Your task to perform on an android device: Search for pizza restaurants on Maps Image 0: 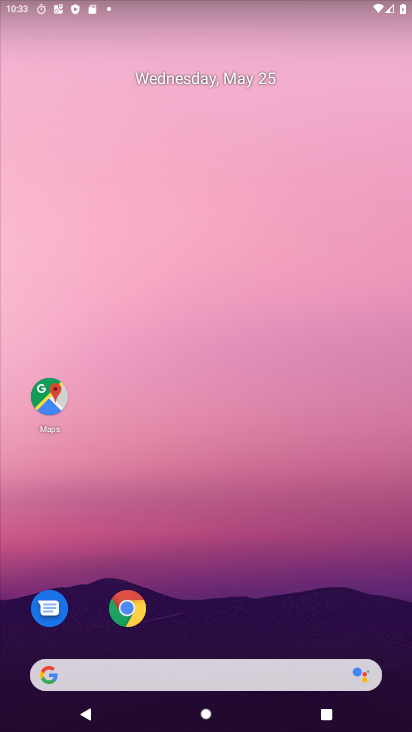
Step 0: click (50, 395)
Your task to perform on an android device: Search for pizza restaurants on Maps Image 1: 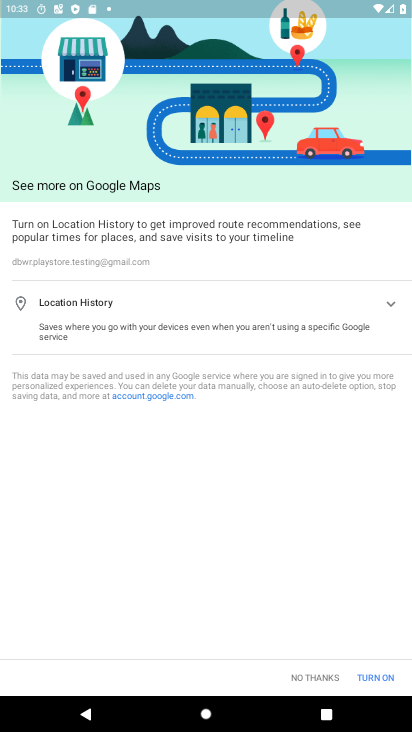
Step 1: click (313, 675)
Your task to perform on an android device: Search for pizza restaurants on Maps Image 2: 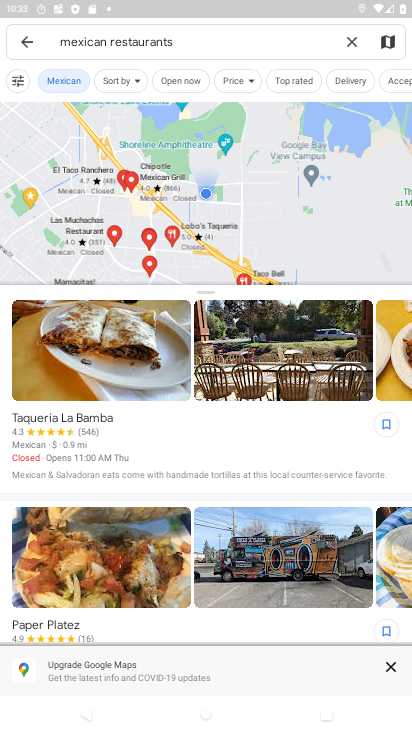
Step 2: click (350, 40)
Your task to perform on an android device: Search for pizza restaurants on Maps Image 3: 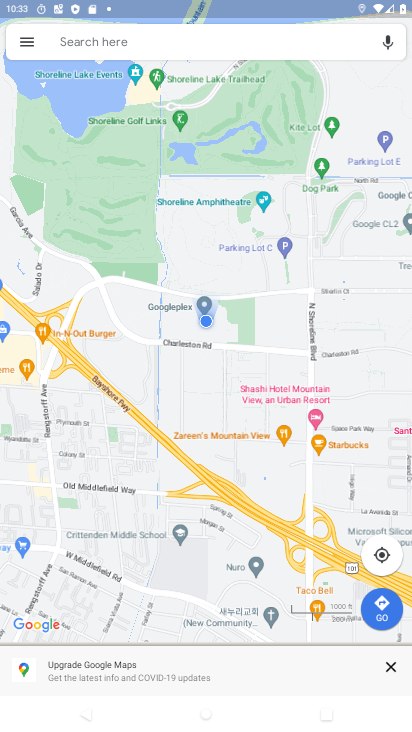
Step 3: click (202, 48)
Your task to perform on an android device: Search for pizza restaurants on Maps Image 4: 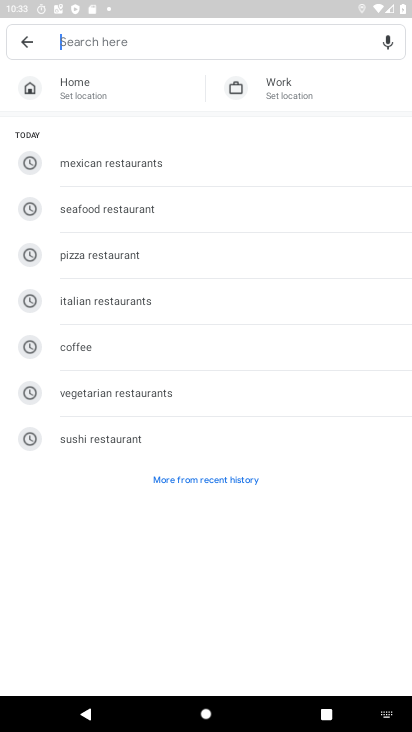
Step 4: click (168, 259)
Your task to perform on an android device: Search for pizza restaurants on Maps Image 5: 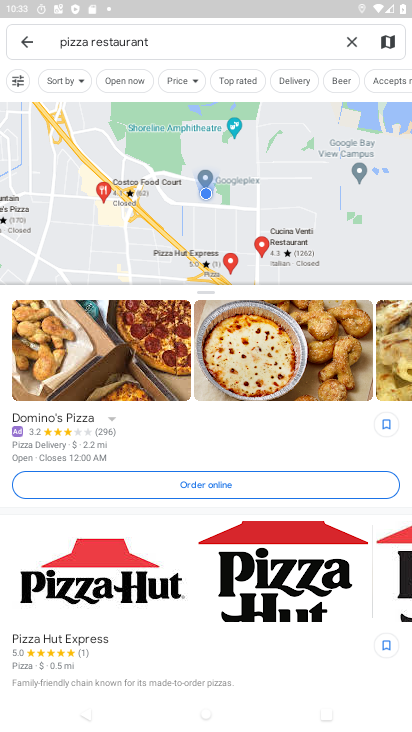
Step 5: task complete